Your task to perform on an android device: Clear all items from cart on target. Add razer thresher to the cart on target, then select checkout. Image 0: 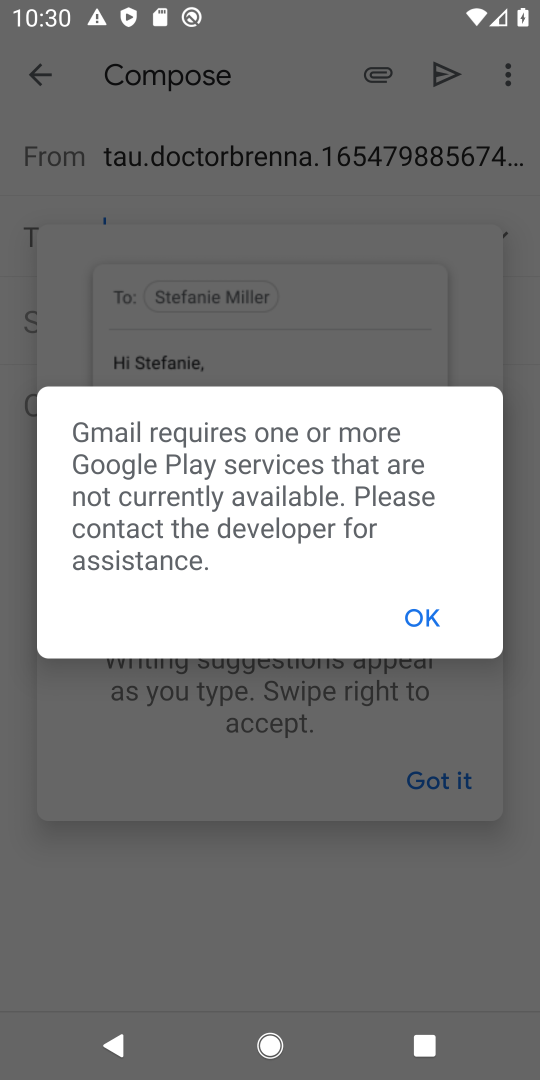
Step 0: click (410, 632)
Your task to perform on an android device: Clear all items from cart on target. Add razer thresher to the cart on target, then select checkout. Image 1: 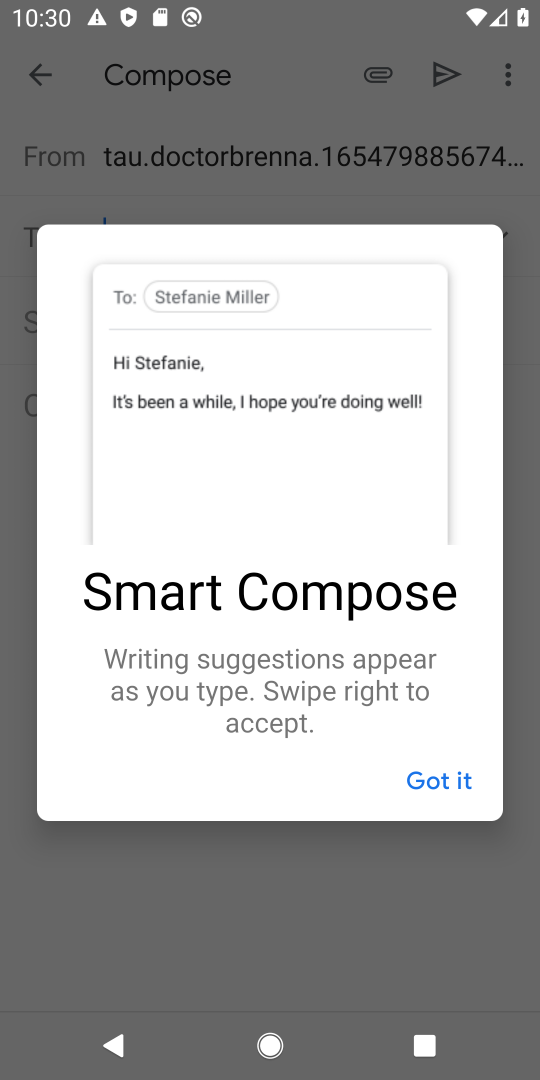
Step 1: click (431, 770)
Your task to perform on an android device: Clear all items from cart on target. Add razer thresher to the cart on target, then select checkout. Image 2: 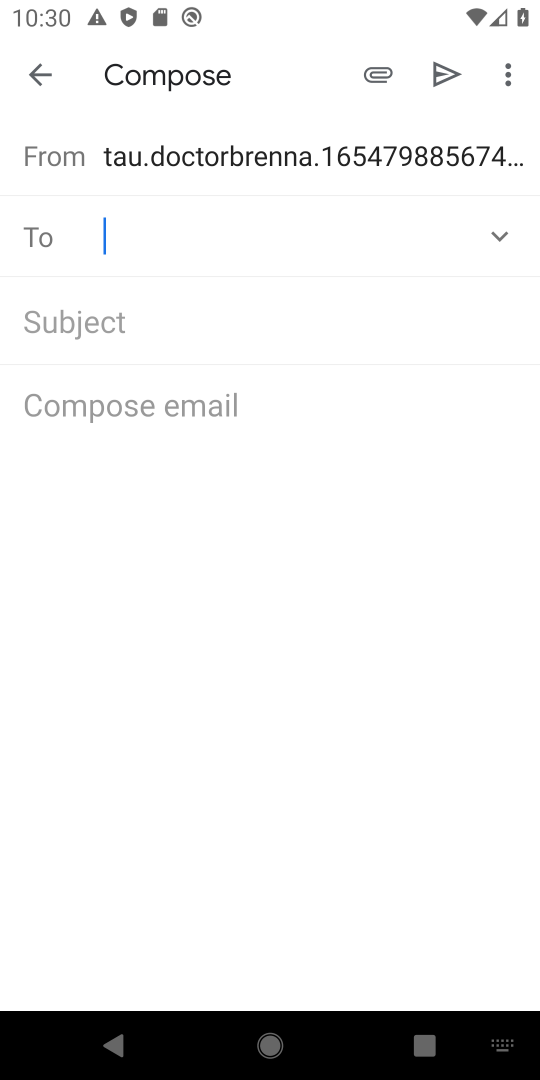
Step 2: press home button
Your task to perform on an android device: Clear all items from cart on target. Add razer thresher to the cart on target, then select checkout. Image 3: 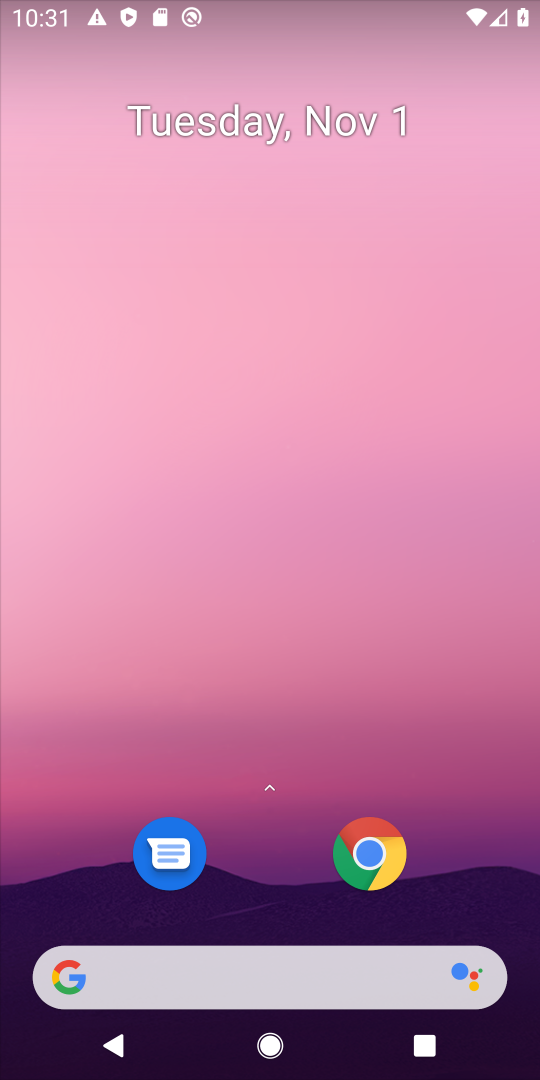
Step 3: click (211, 998)
Your task to perform on an android device: Clear all items from cart on target. Add razer thresher to the cart on target, then select checkout. Image 4: 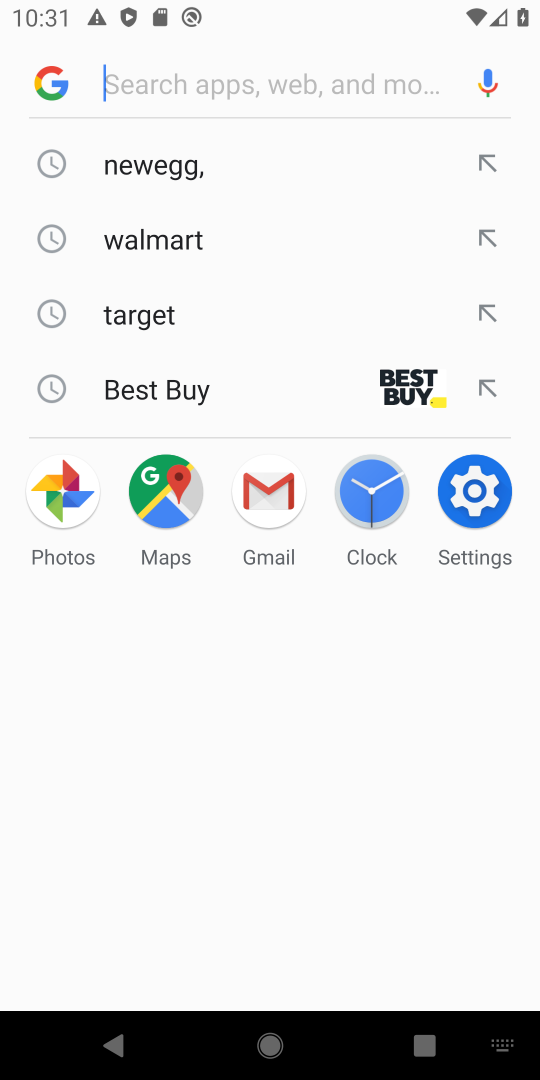
Step 4: type "razer thresher"
Your task to perform on an android device: Clear all items from cart on target. Add razer thresher to the cart on target, then select checkout. Image 5: 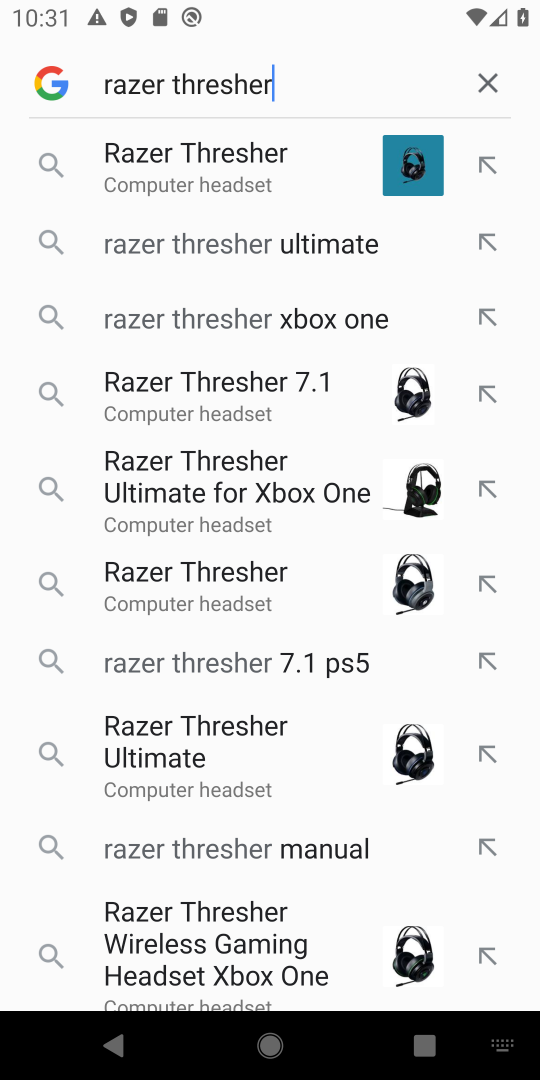
Step 5: click (220, 191)
Your task to perform on an android device: Clear all items from cart on target. Add razer thresher to the cart on target, then select checkout. Image 6: 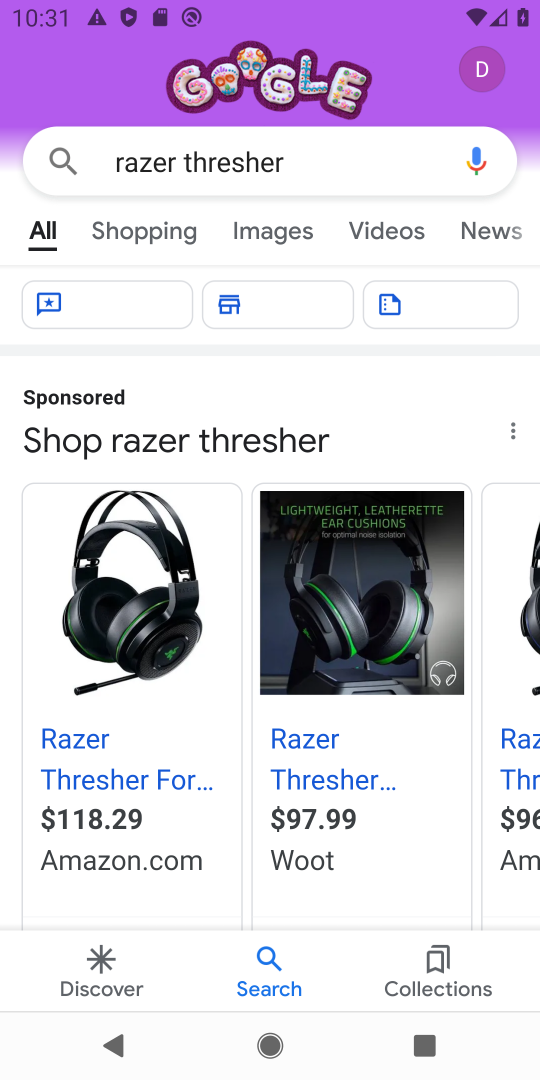
Step 6: click (173, 749)
Your task to perform on an android device: Clear all items from cart on target. Add razer thresher to the cart on target, then select checkout. Image 7: 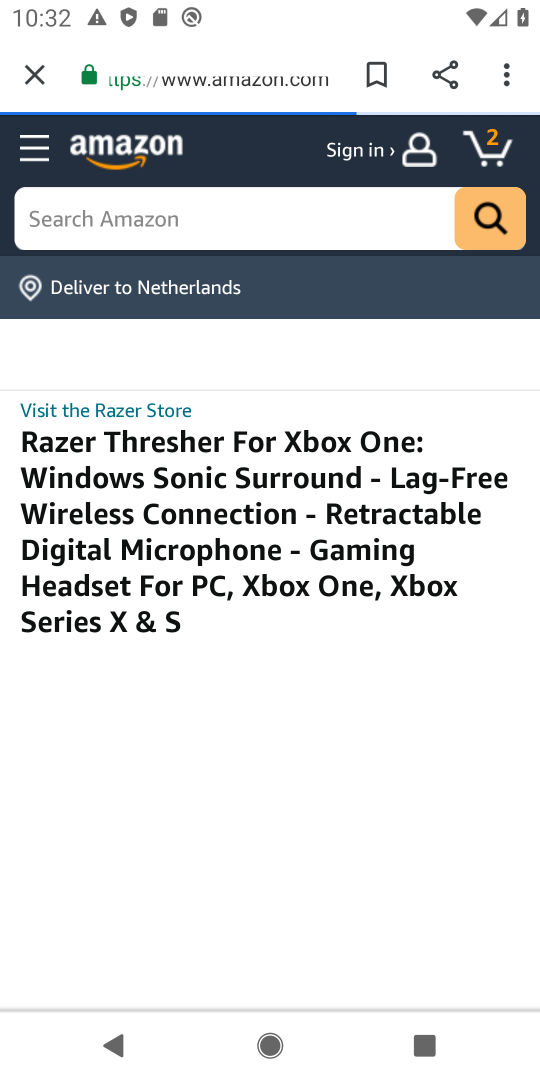
Step 7: task complete